Your task to perform on an android device: What's the weather going to be tomorrow? Image 0: 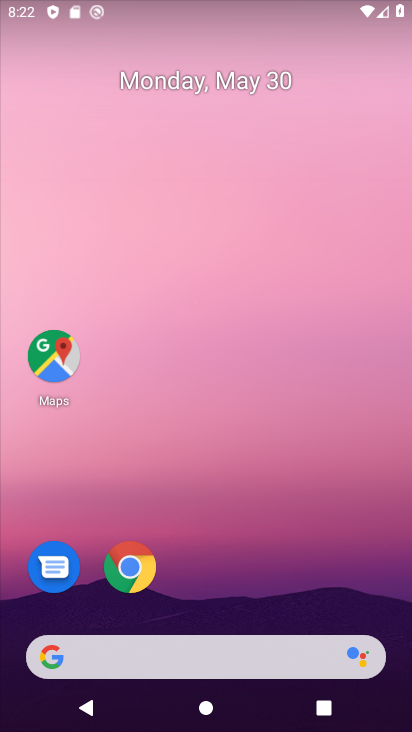
Step 0: click (170, 96)
Your task to perform on an android device: What's the weather going to be tomorrow? Image 1: 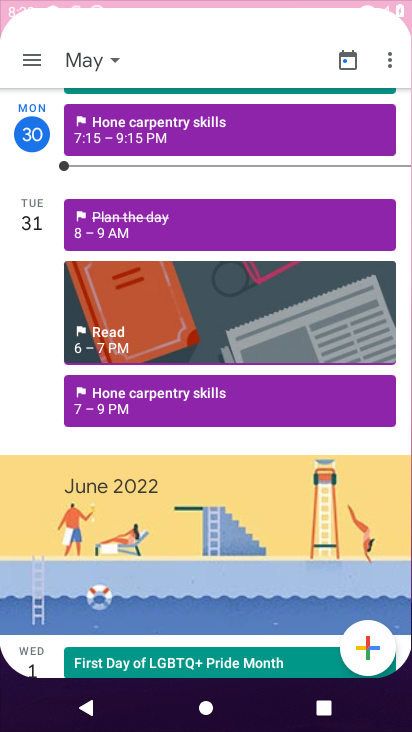
Step 1: click (255, 668)
Your task to perform on an android device: What's the weather going to be tomorrow? Image 2: 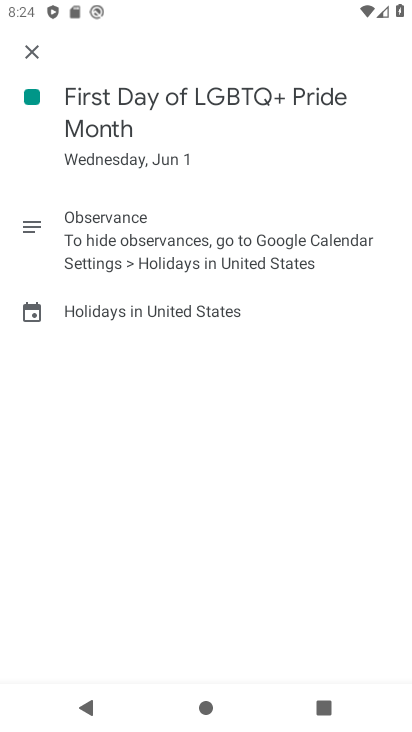
Step 2: press home button
Your task to perform on an android device: What's the weather going to be tomorrow? Image 3: 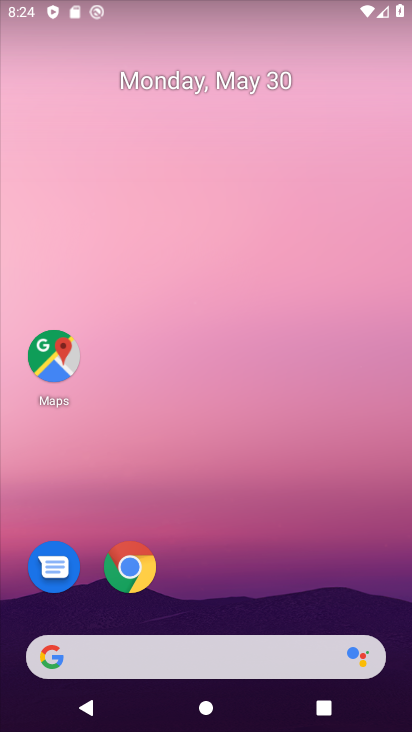
Step 3: click (271, 666)
Your task to perform on an android device: What's the weather going to be tomorrow? Image 4: 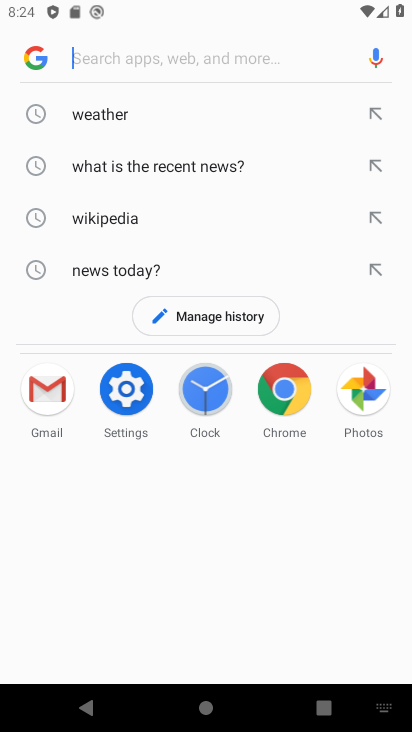
Step 4: click (102, 100)
Your task to perform on an android device: What's the weather going to be tomorrow? Image 5: 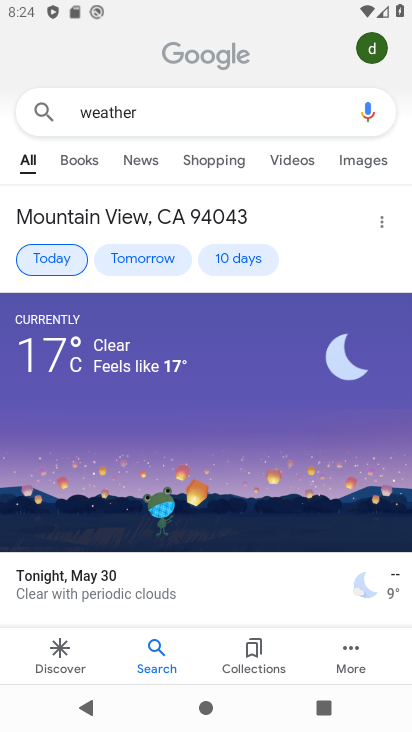
Step 5: click (126, 267)
Your task to perform on an android device: What's the weather going to be tomorrow? Image 6: 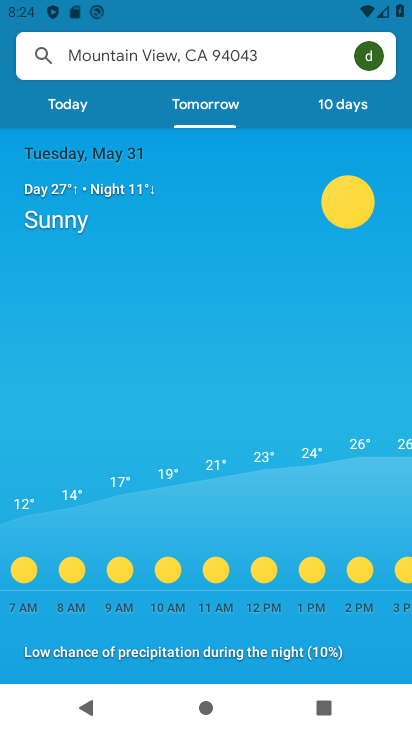
Step 6: task complete